Your task to perform on an android device: Show me recent news Image 0: 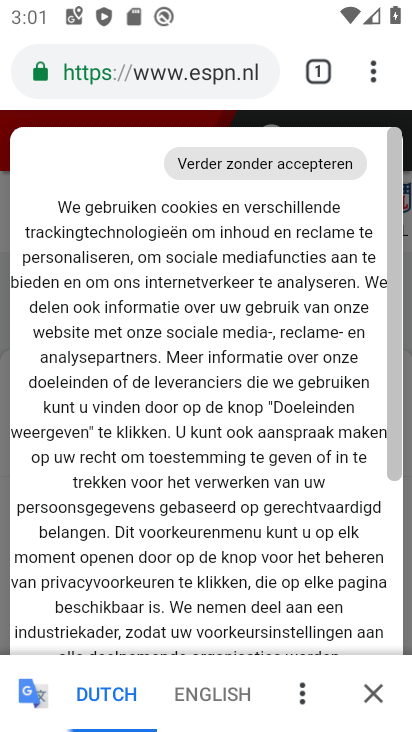
Step 0: press back button
Your task to perform on an android device: Show me recent news Image 1: 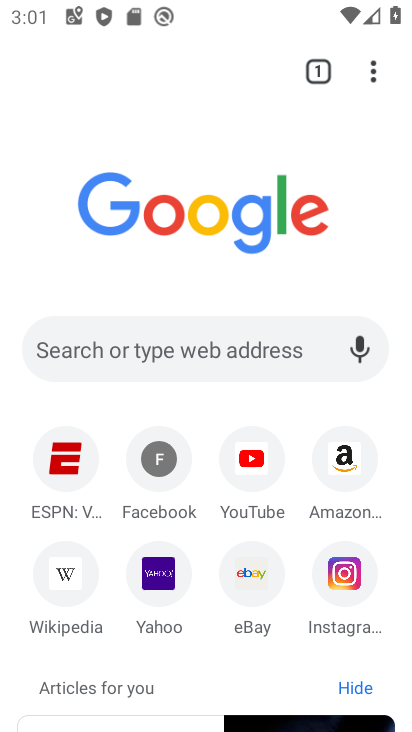
Step 1: click (112, 343)
Your task to perform on an android device: Show me recent news Image 2: 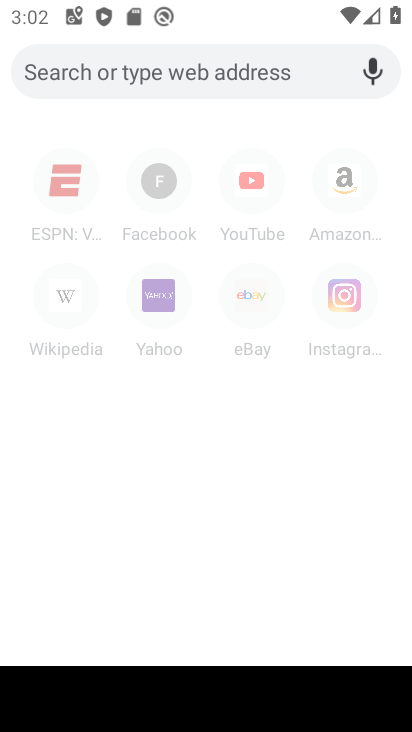
Step 2: type "recent news"
Your task to perform on an android device: Show me recent news Image 3: 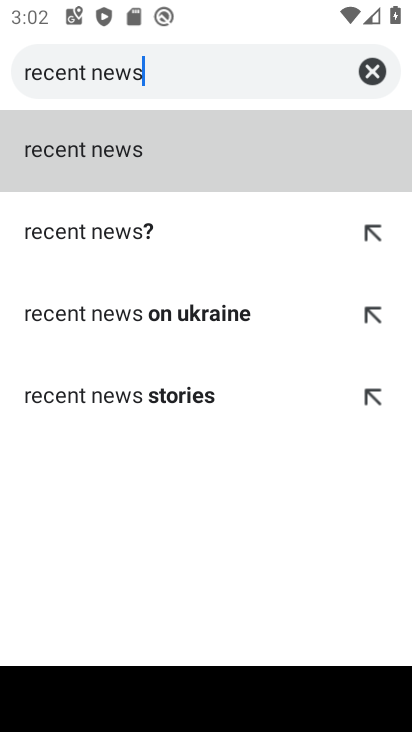
Step 3: click (119, 154)
Your task to perform on an android device: Show me recent news Image 4: 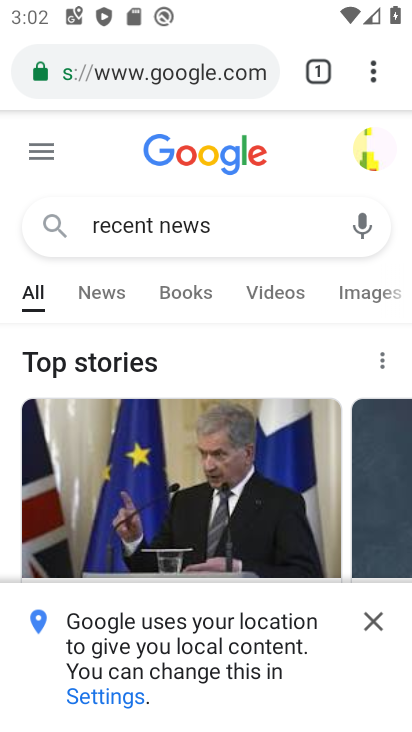
Step 4: task complete